Your task to perform on an android device: read, delete, or share a saved page in the chrome app Image 0: 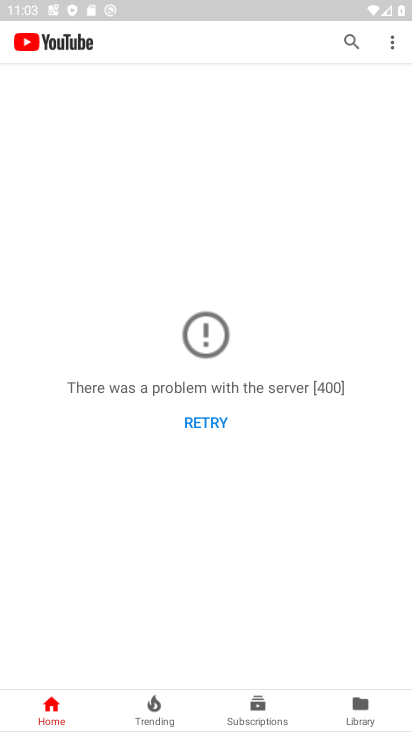
Step 0: press back button
Your task to perform on an android device: read, delete, or share a saved page in the chrome app Image 1: 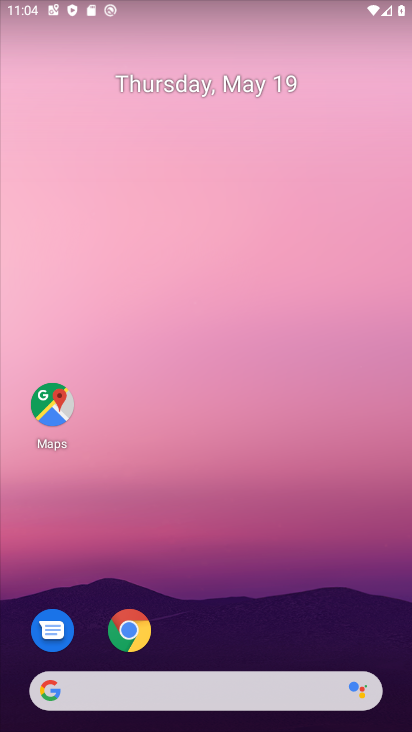
Step 1: click (130, 627)
Your task to perform on an android device: read, delete, or share a saved page in the chrome app Image 2: 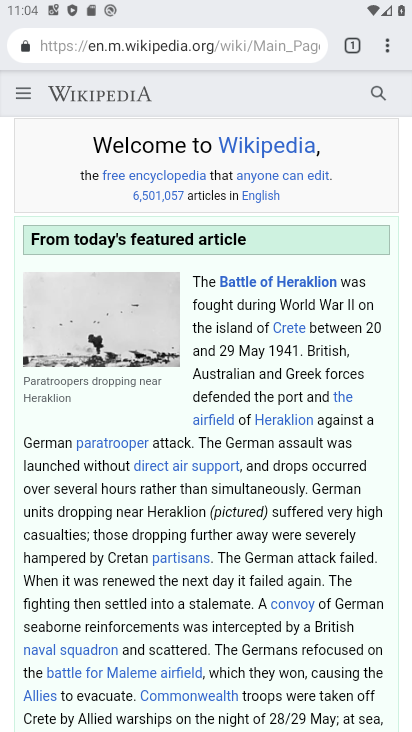
Step 2: click (388, 44)
Your task to perform on an android device: read, delete, or share a saved page in the chrome app Image 3: 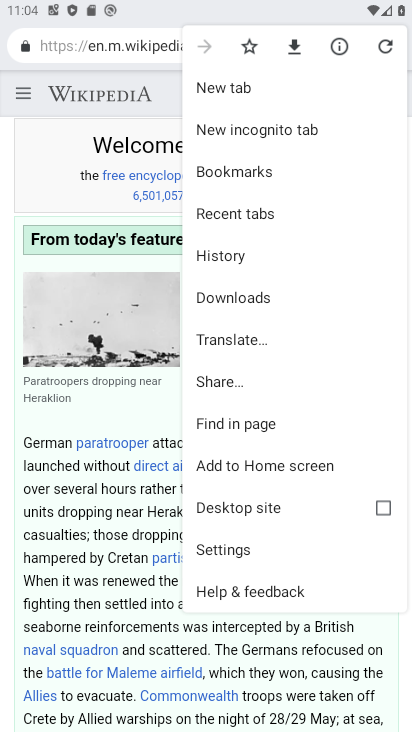
Step 3: click (240, 296)
Your task to perform on an android device: read, delete, or share a saved page in the chrome app Image 4: 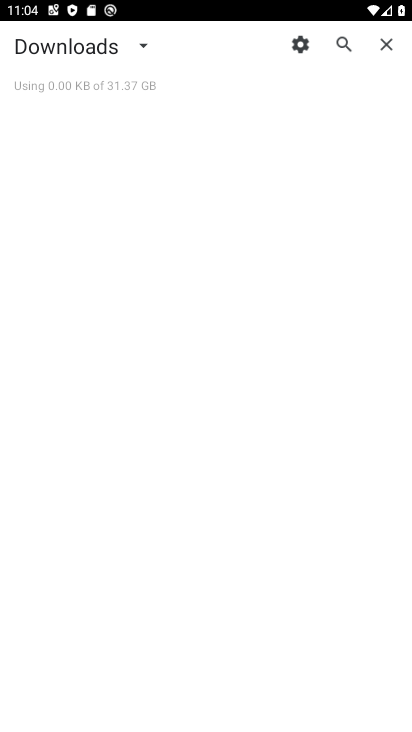
Step 4: task complete